Your task to perform on an android device: Open the Play Movies app and select the watchlist tab. Image 0: 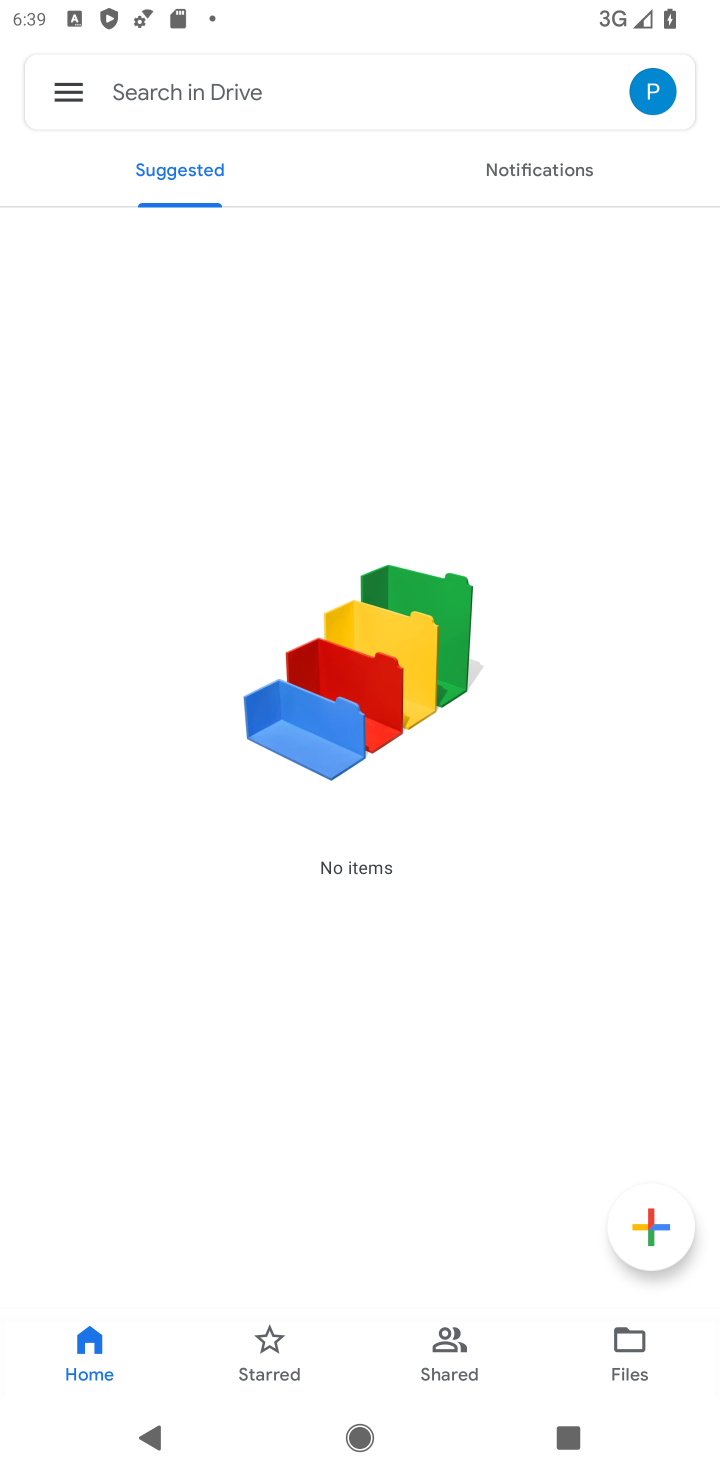
Step 0: press home button
Your task to perform on an android device: Open the Play Movies app and select the watchlist tab. Image 1: 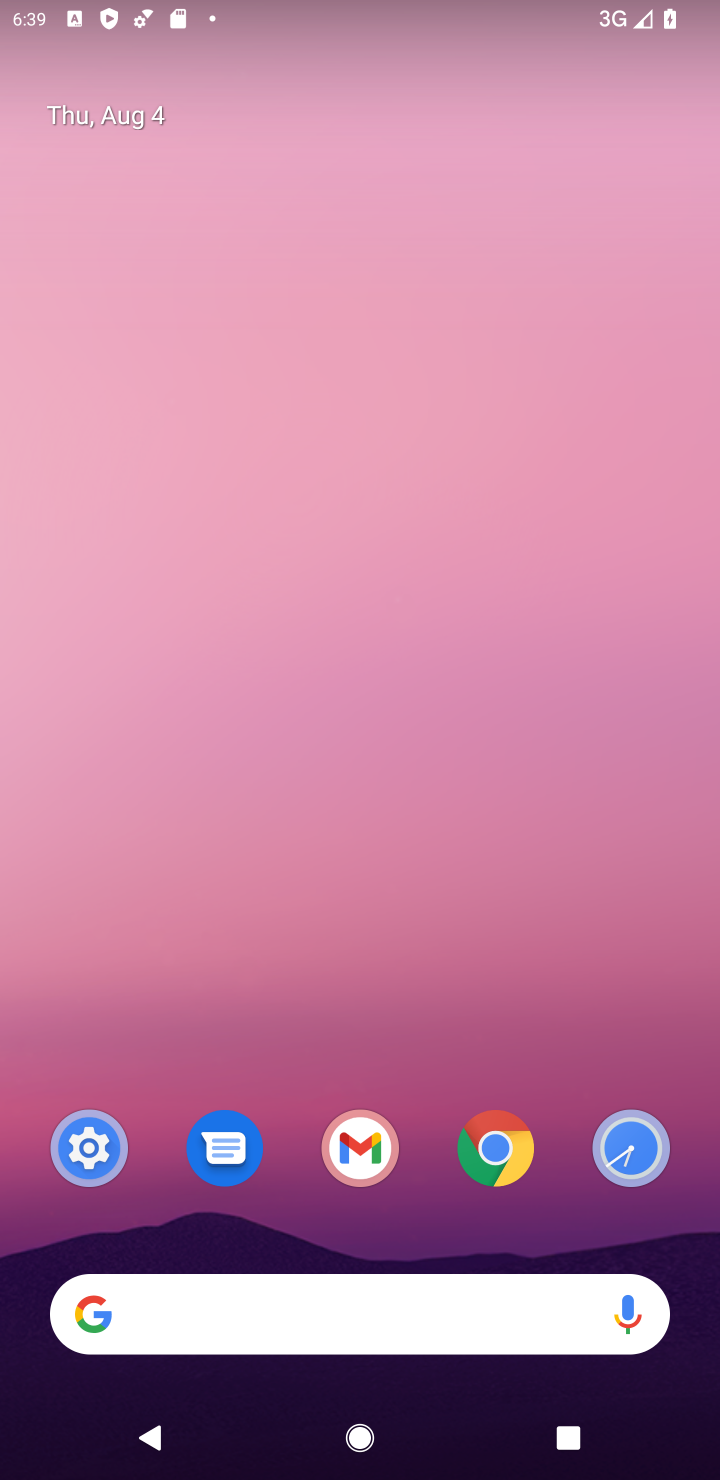
Step 1: task complete